Your task to perform on an android device: install app "DoorDash - Dasher" Image 0: 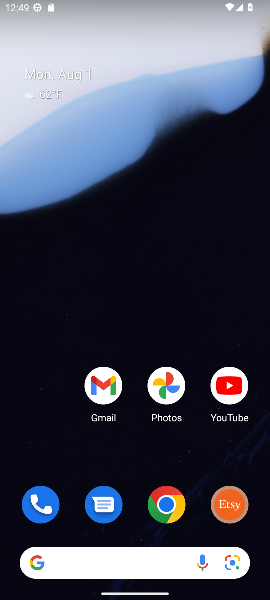
Step 0: click (225, 560)
Your task to perform on an android device: install app "DoorDash - Dasher" Image 1: 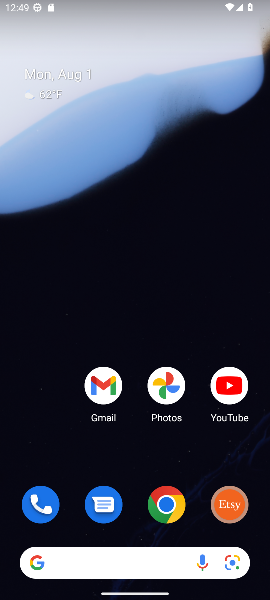
Step 1: drag from (225, 560) to (211, 127)
Your task to perform on an android device: install app "DoorDash - Dasher" Image 2: 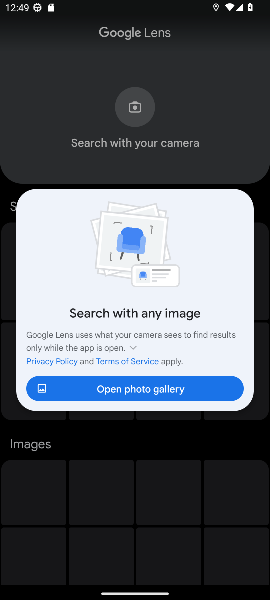
Step 2: press home button
Your task to perform on an android device: install app "DoorDash - Dasher" Image 3: 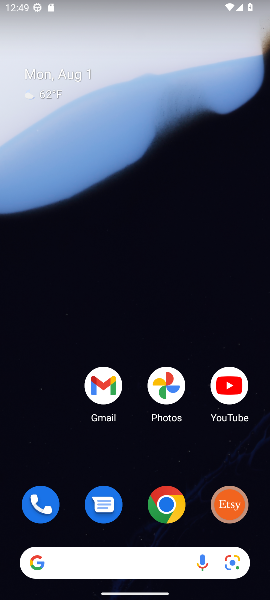
Step 3: drag from (129, 538) to (159, 6)
Your task to perform on an android device: install app "DoorDash - Dasher" Image 4: 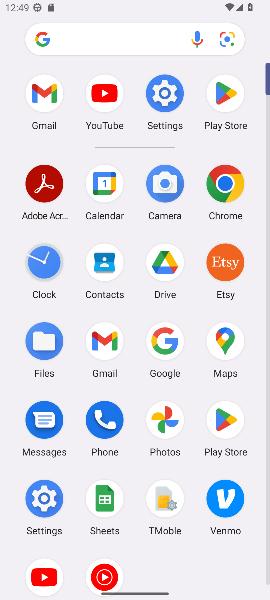
Step 4: click (227, 87)
Your task to perform on an android device: install app "DoorDash - Dasher" Image 5: 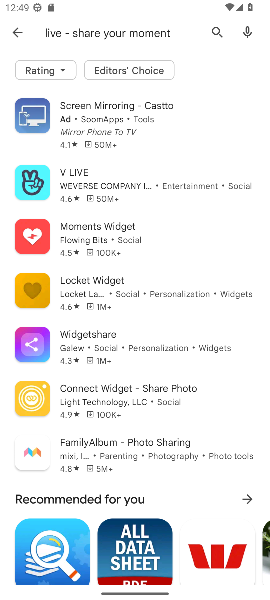
Step 5: click (217, 29)
Your task to perform on an android device: install app "DoorDash - Dasher" Image 6: 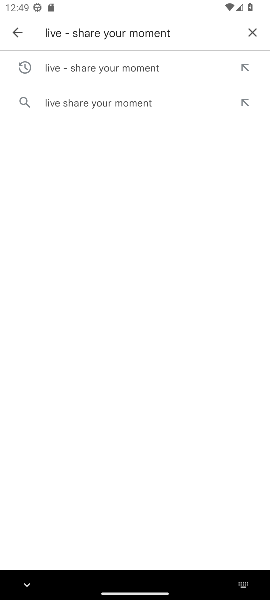
Step 6: click (248, 28)
Your task to perform on an android device: install app "DoorDash - Dasher" Image 7: 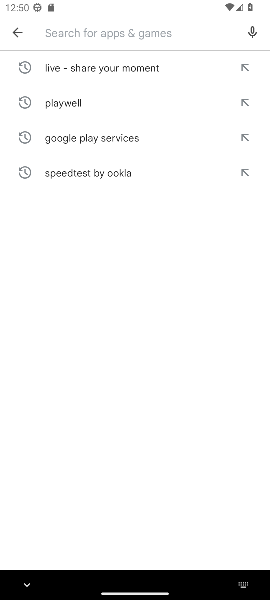
Step 7: type "doordash - dasher"
Your task to perform on an android device: install app "DoorDash - Dasher" Image 8: 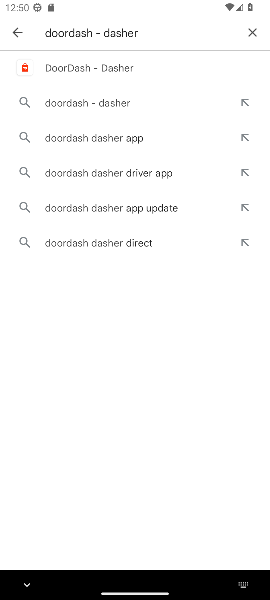
Step 8: click (88, 67)
Your task to perform on an android device: install app "DoorDash - Dasher" Image 9: 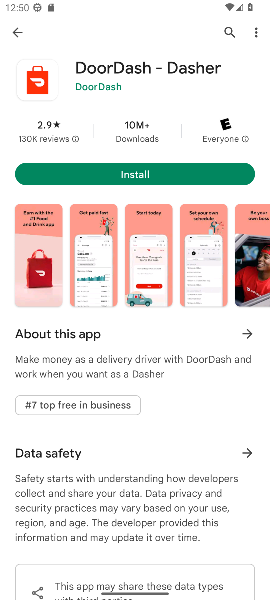
Step 9: click (128, 165)
Your task to perform on an android device: install app "DoorDash - Dasher" Image 10: 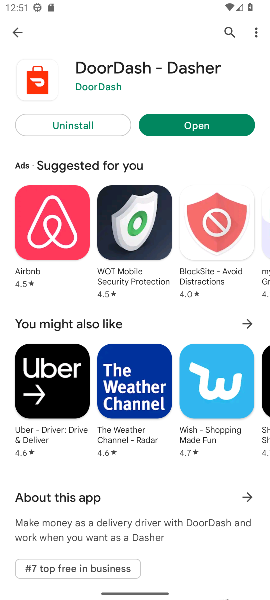
Step 10: task complete